Your task to perform on an android device: toggle translation in the chrome app Image 0: 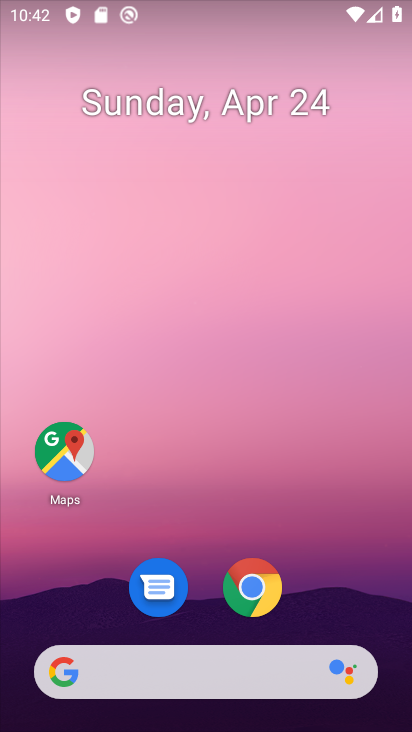
Step 0: click (253, 588)
Your task to perform on an android device: toggle translation in the chrome app Image 1: 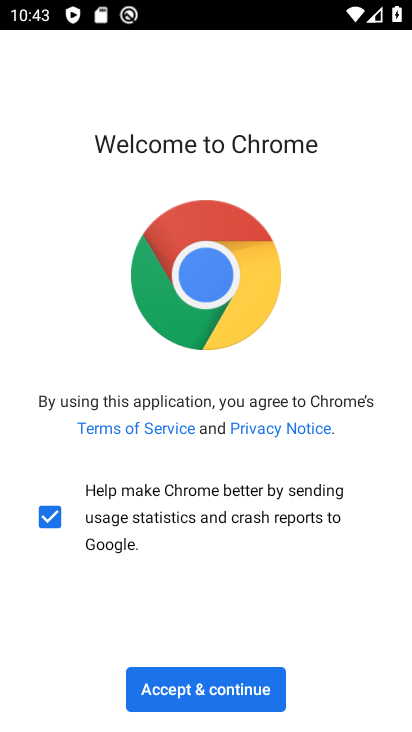
Step 1: click (248, 680)
Your task to perform on an android device: toggle translation in the chrome app Image 2: 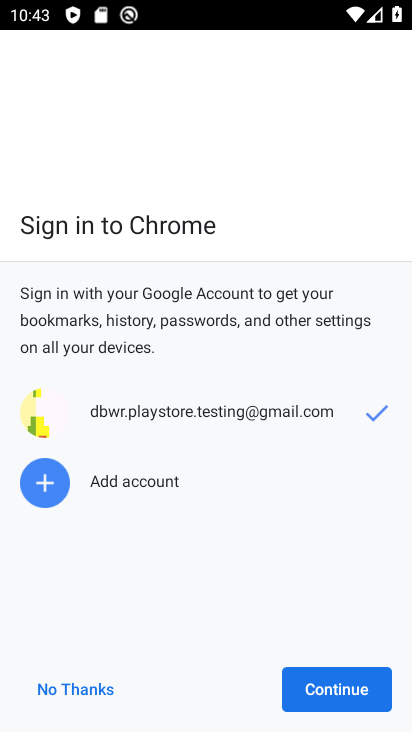
Step 2: click (366, 684)
Your task to perform on an android device: toggle translation in the chrome app Image 3: 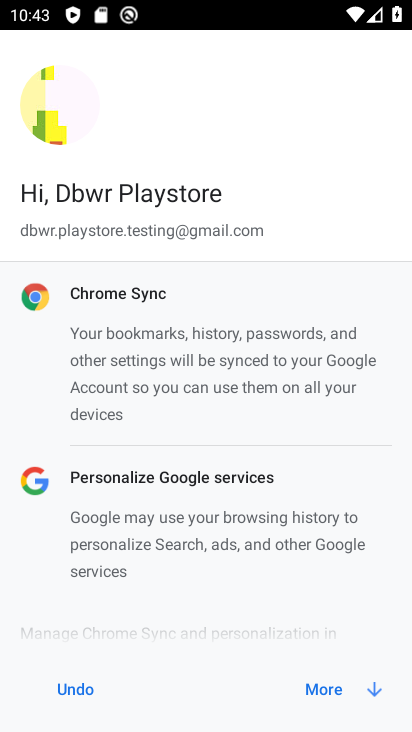
Step 3: click (326, 686)
Your task to perform on an android device: toggle translation in the chrome app Image 4: 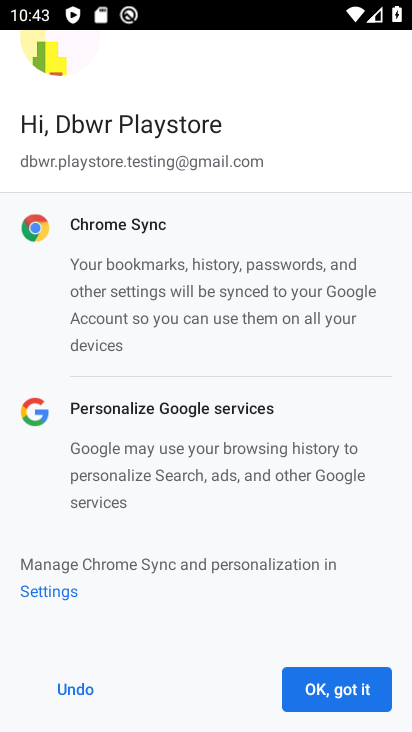
Step 4: click (325, 686)
Your task to perform on an android device: toggle translation in the chrome app Image 5: 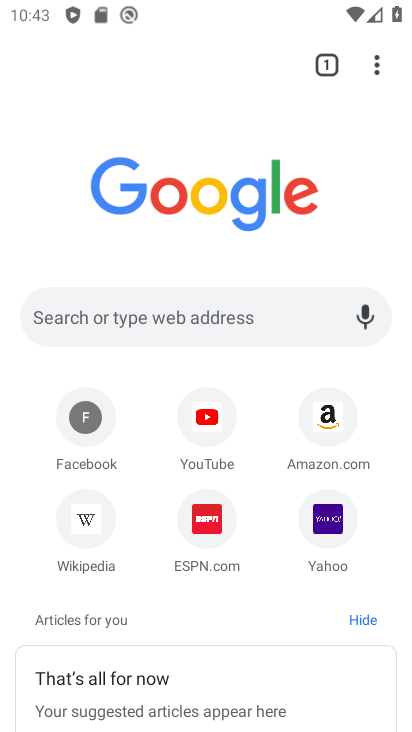
Step 5: drag from (381, 57) to (167, 565)
Your task to perform on an android device: toggle translation in the chrome app Image 6: 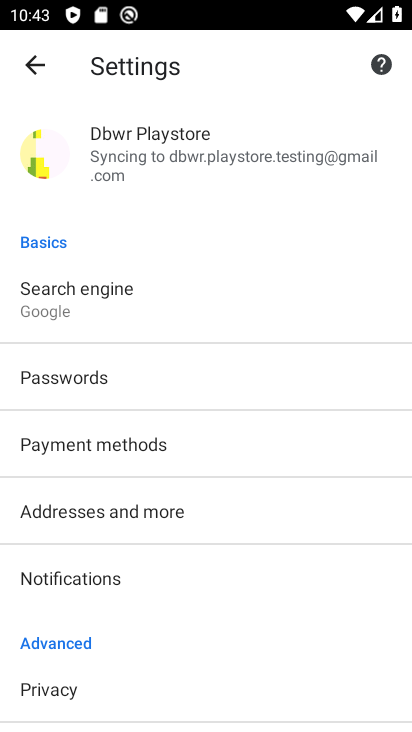
Step 6: drag from (170, 537) to (175, 261)
Your task to perform on an android device: toggle translation in the chrome app Image 7: 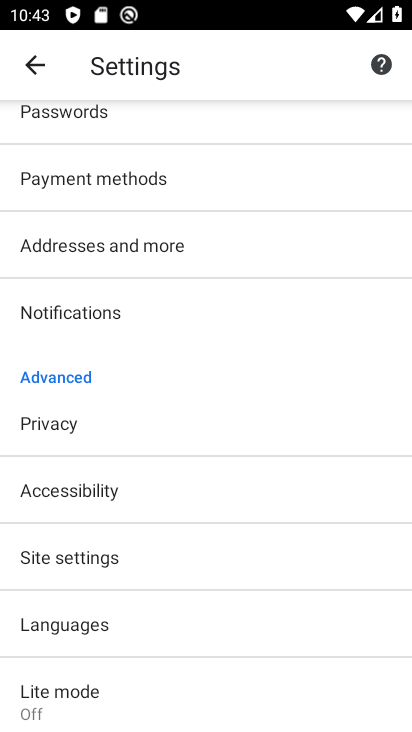
Step 7: click (61, 618)
Your task to perform on an android device: toggle translation in the chrome app Image 8: 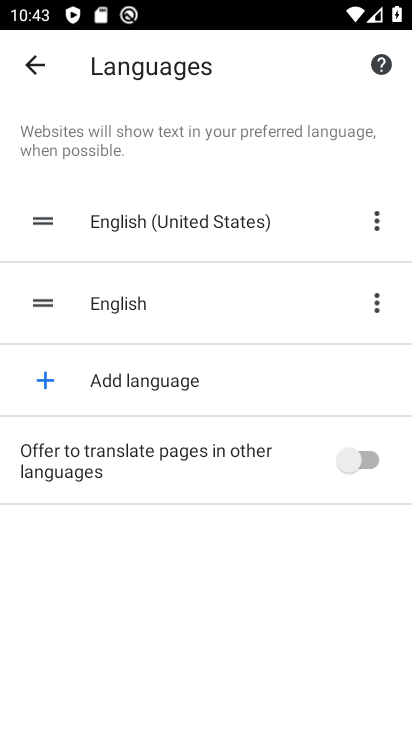
Step 8: click (334, 462)
Your task to perform on an android device: toggle translation in the chrome app Image 9: 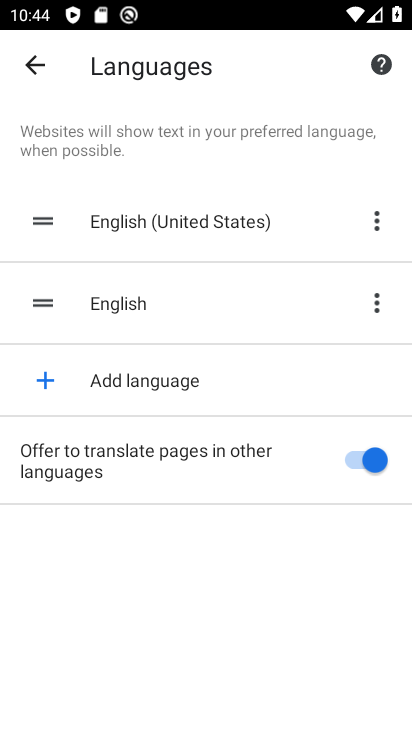
Step 9: task complete